Your task to perform on an android device: turn off notifications settings in the gmail app Image 0: 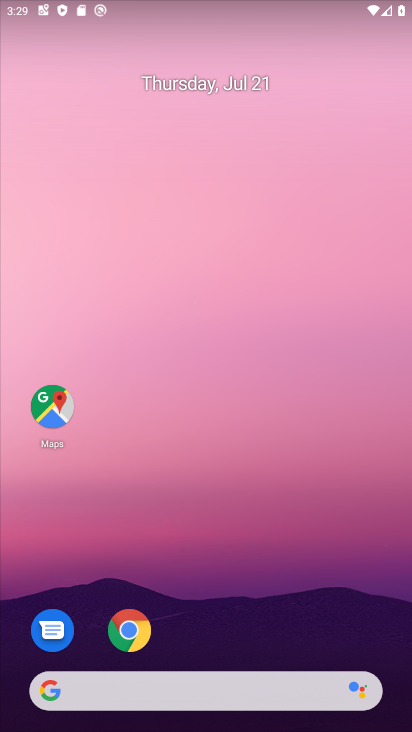
Step 0: drag from (228, 664) to (146, 115)
Your task to perform on an android device: turn off notifications settings in the gmail app Image 1: 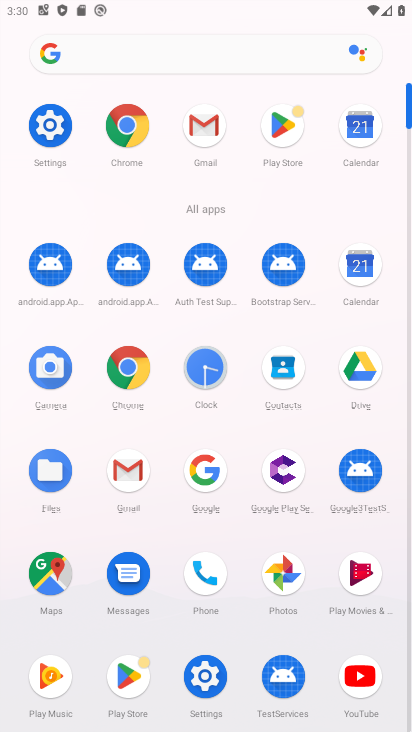
Step 1: click (133, 472)
Your task to perform on an android device: turn off notifications settings in the gmail app Image 2: 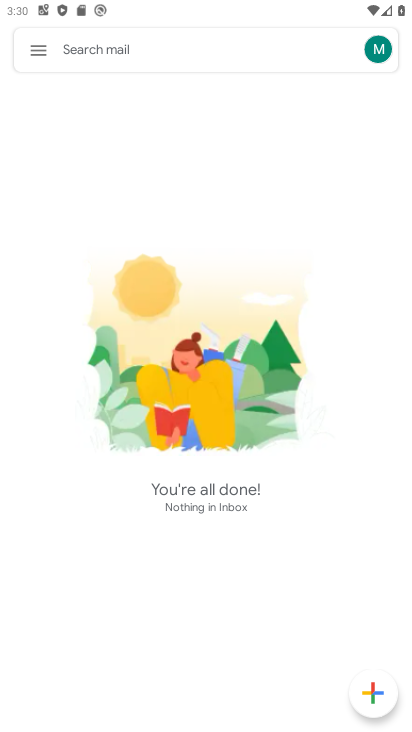
Step 2: click (45, 42)
Your task to perform on an android device: turn off notifications settings in the gmail app Image 3: 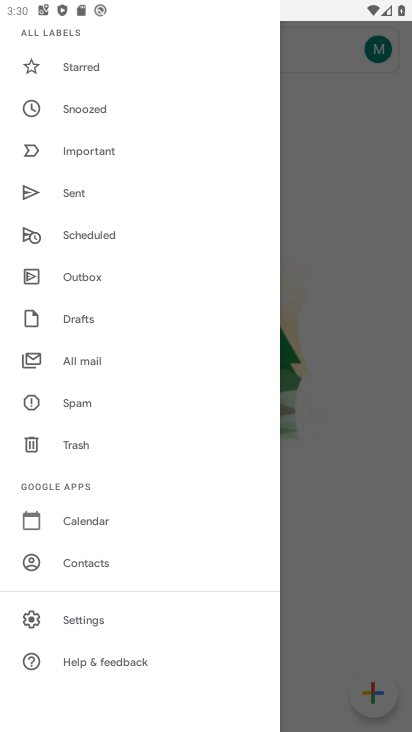
Step 3: click (91, 625)
Your task to perform on an android device: turn off notifications settings in the gmail app Image 4: 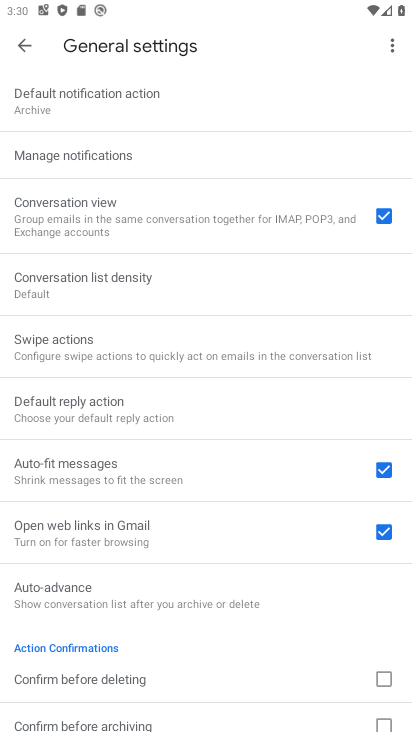
Step 4: click (66, 155)
Your task to perform on an android device: turn off notifications settings in the gmail app Image 5: 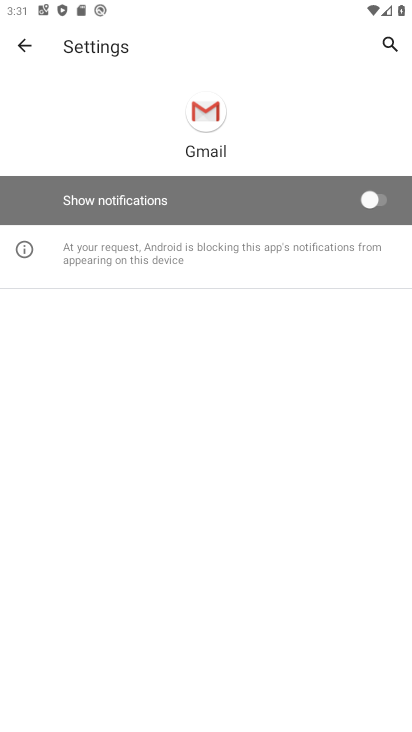
Step 5: task complete